Your task to perform on an android device: Show me productivity apps on the Play Store Image 0: 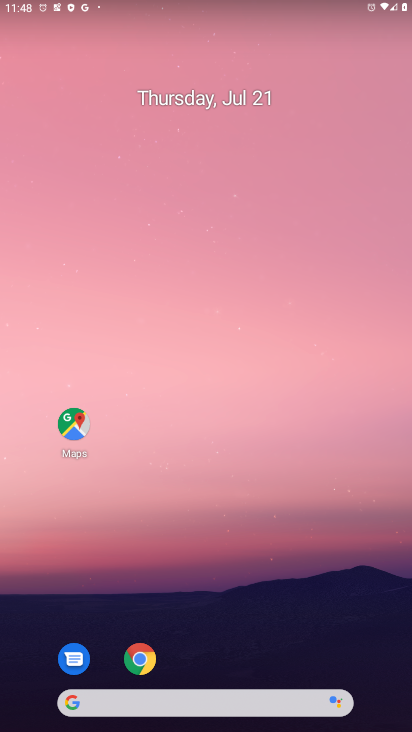
Step 0: drag from (183, 695) to (168, 78)
Your task to perform on an android device: Show me productivity apps on the Play Store Image 1: 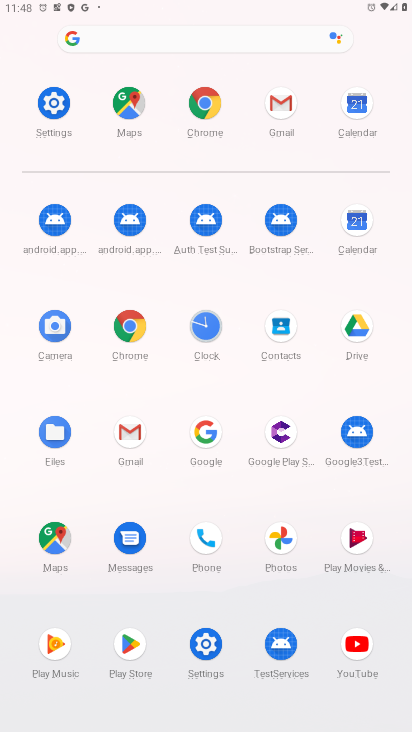
Step 1: click (129, 643)
Your task to perform on an android device: Show me productivity apps on the Play Store Image 2: 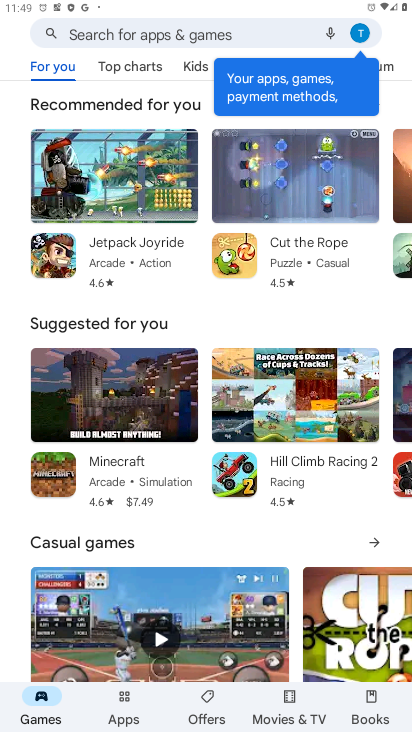
Step 2: click (120, 706)
Your task to perform on an android device: Show me productivity apps on the Play Store Image 3: 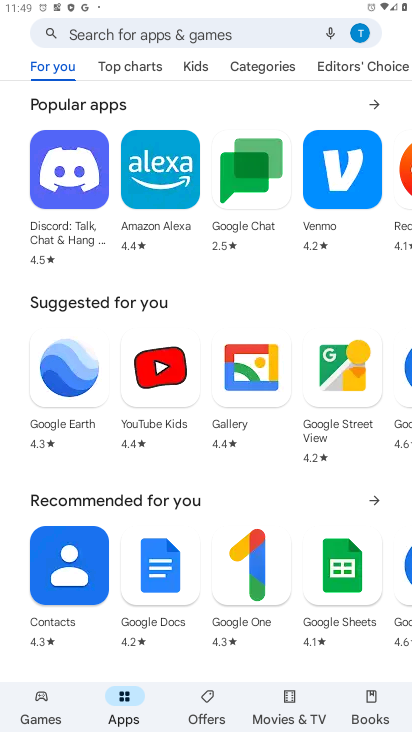
Step 3: click (266, 66)
Your task to perform on an android device: Show me productivity apps on the Play Store Image 4: 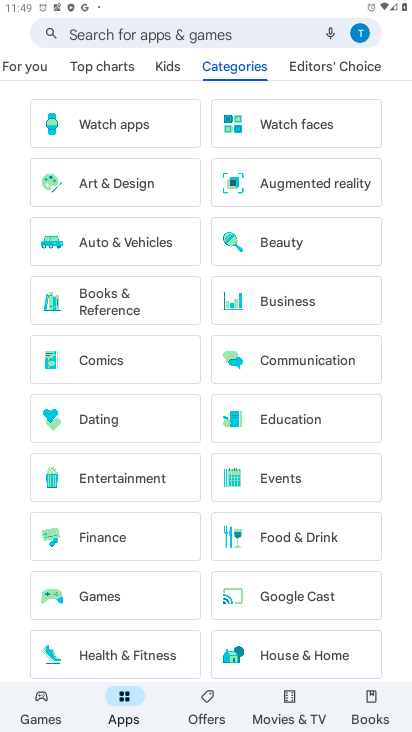
Step 4: drag from (143, 606) to (182, 480)
Your task to perform on an android device: Show me productivity apps on the Play Store Image 5: 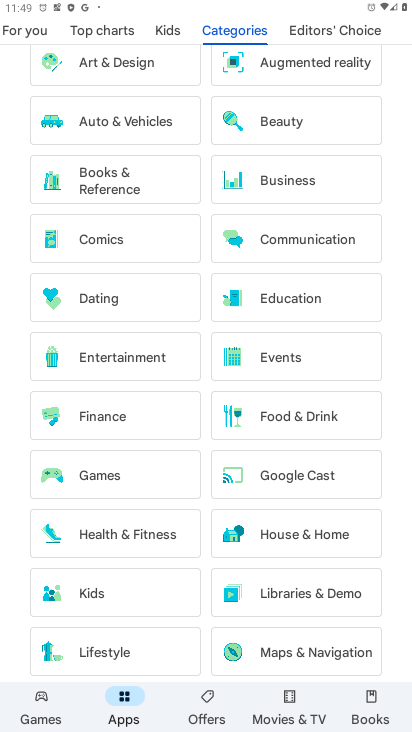
Step 5: drag from (126, 605) to (171, 466)
Your task to perform on an android device: Show me productivity apps on the Play Store Image 6: 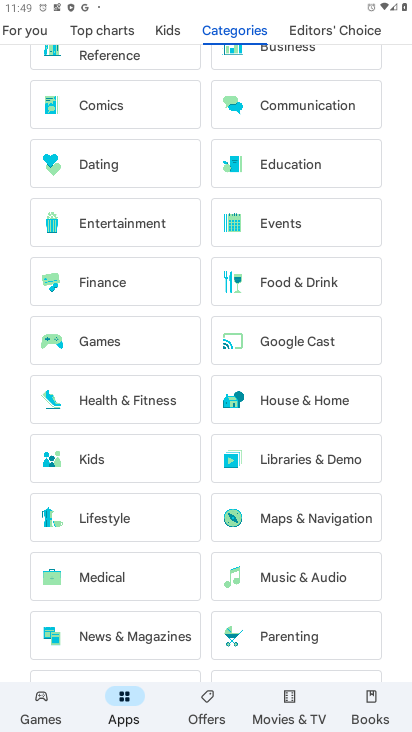
Step 6: drag from (142, 582) to (161, 506)
Your task to perform on an android device: Show me productivity apps on the Play Store Image 7: 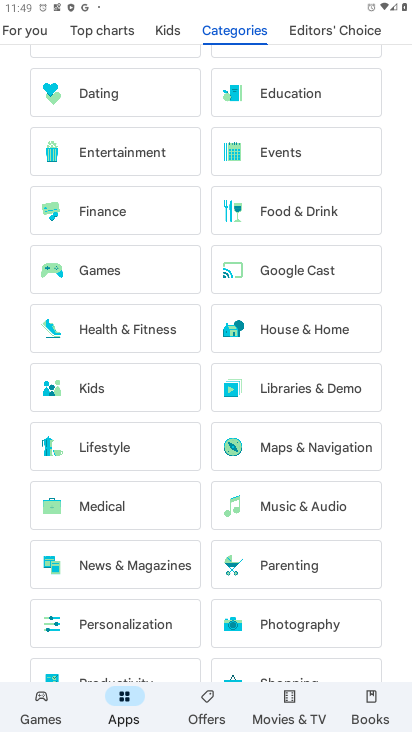
Step 7: drag from (143, 605) to (188, 492)
Your task to perform on an android device: Show me productivity apps on the Play Store Image 8: 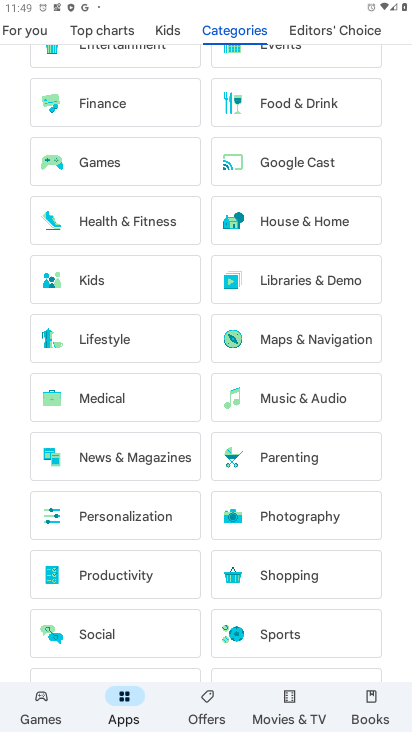
Step 8: click (135, 577)
Your task to perform on an android device: Show me productivity apps on the Play Store Image 9: 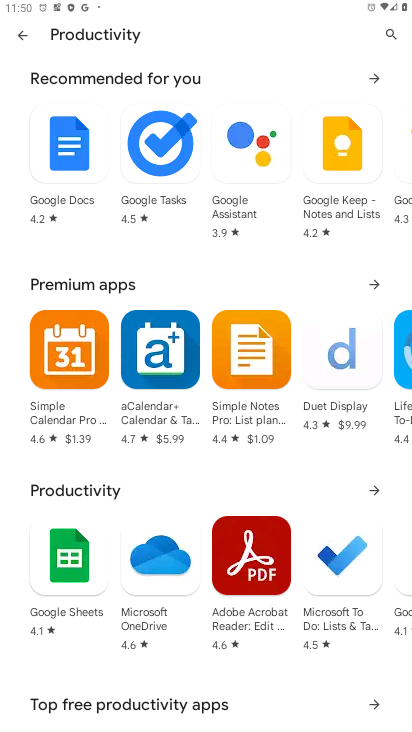
Step 9: task complete